Your task to perform on an android device: Clear the shopping cart on ebay. Search for "alienware aurora" on ebay, select the first entry, add it to the cart, then select checkout. Image 0: 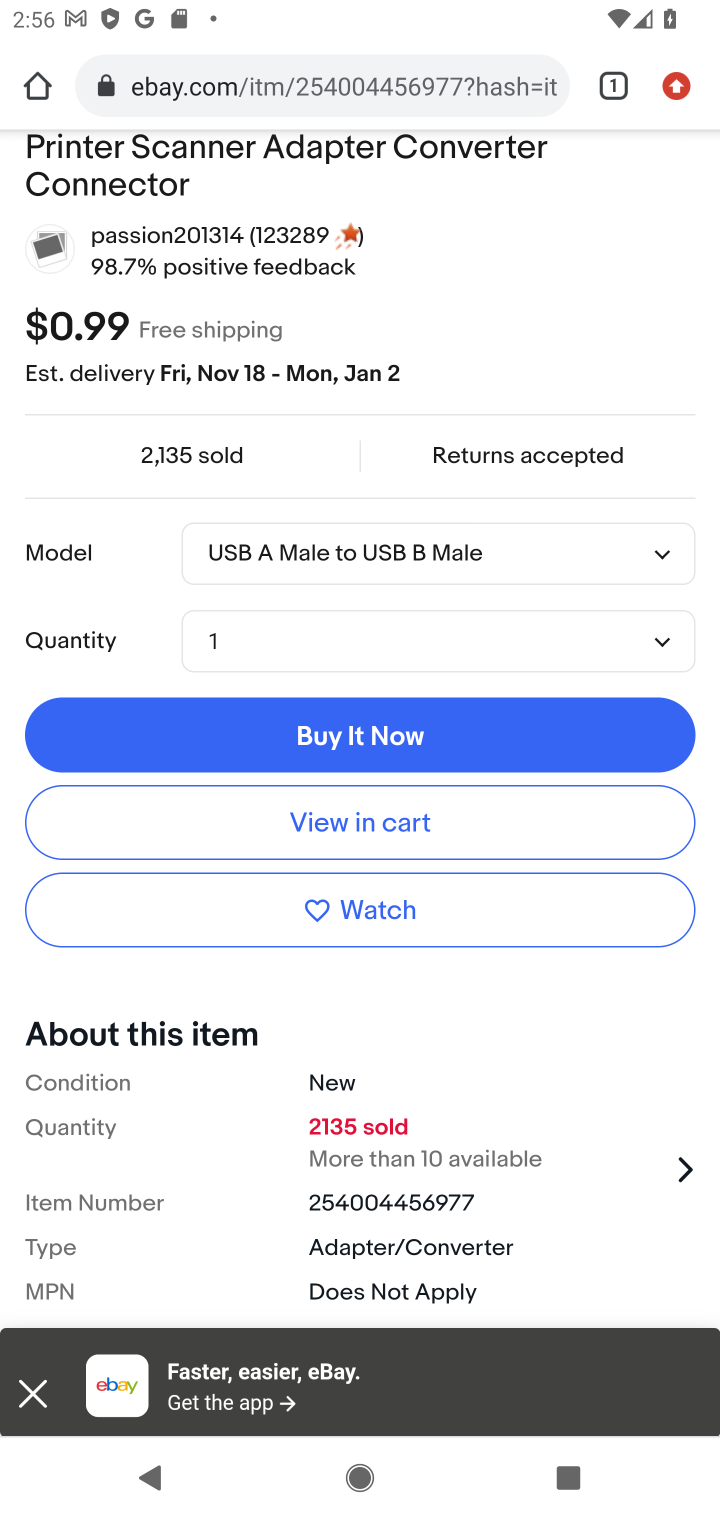
Step 0: click (326, 79)
Your task to perform on an android device: Clear the shopping cart on ebay. Search for "alienware aurora" on ebay, select the first entry, add it to the cart, then select checkout. Image 1: 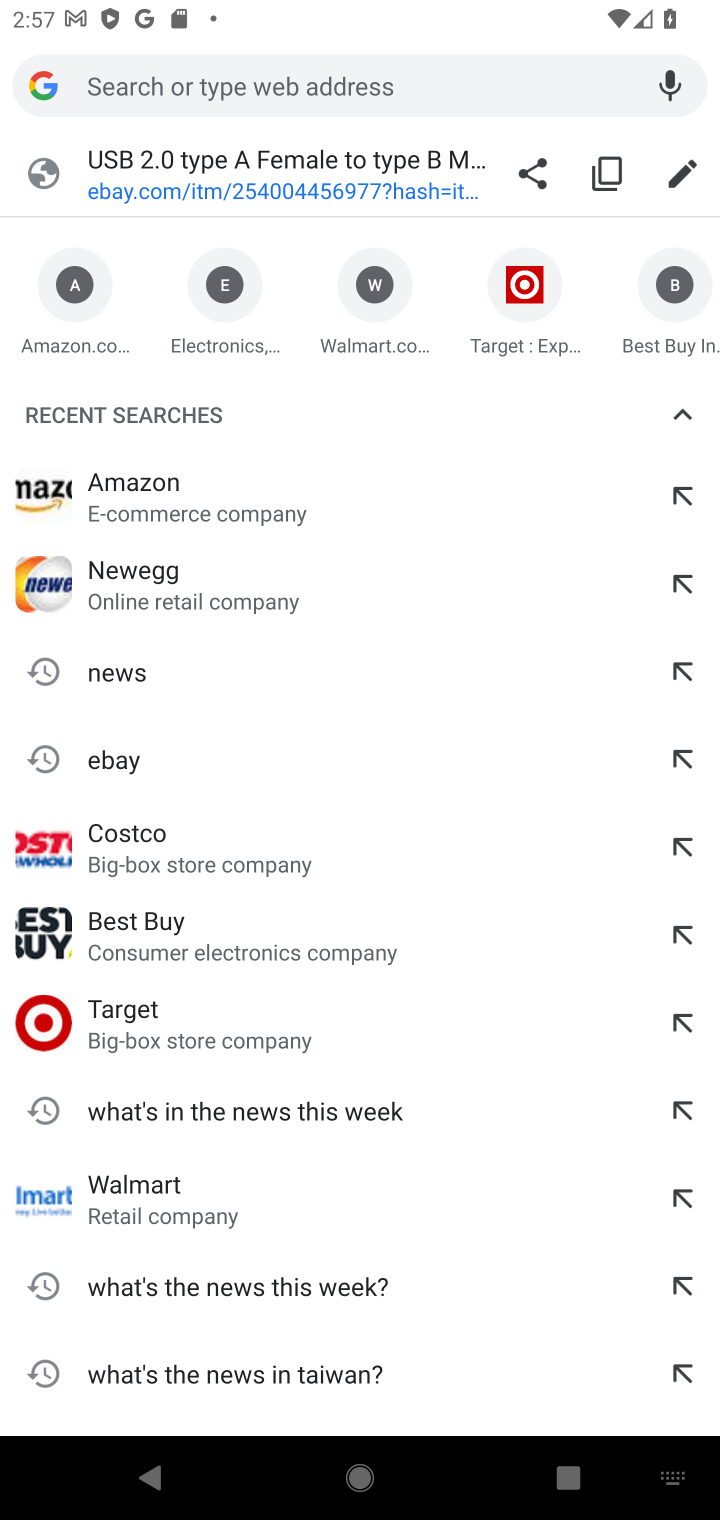
Step 1: type "ebay"
Your task to perform on an android device: Clear the shopping cart on ebay. Search for "alienware aurora" on ebay, select the first entry, add it to the cart, then select checkout. Image 2: 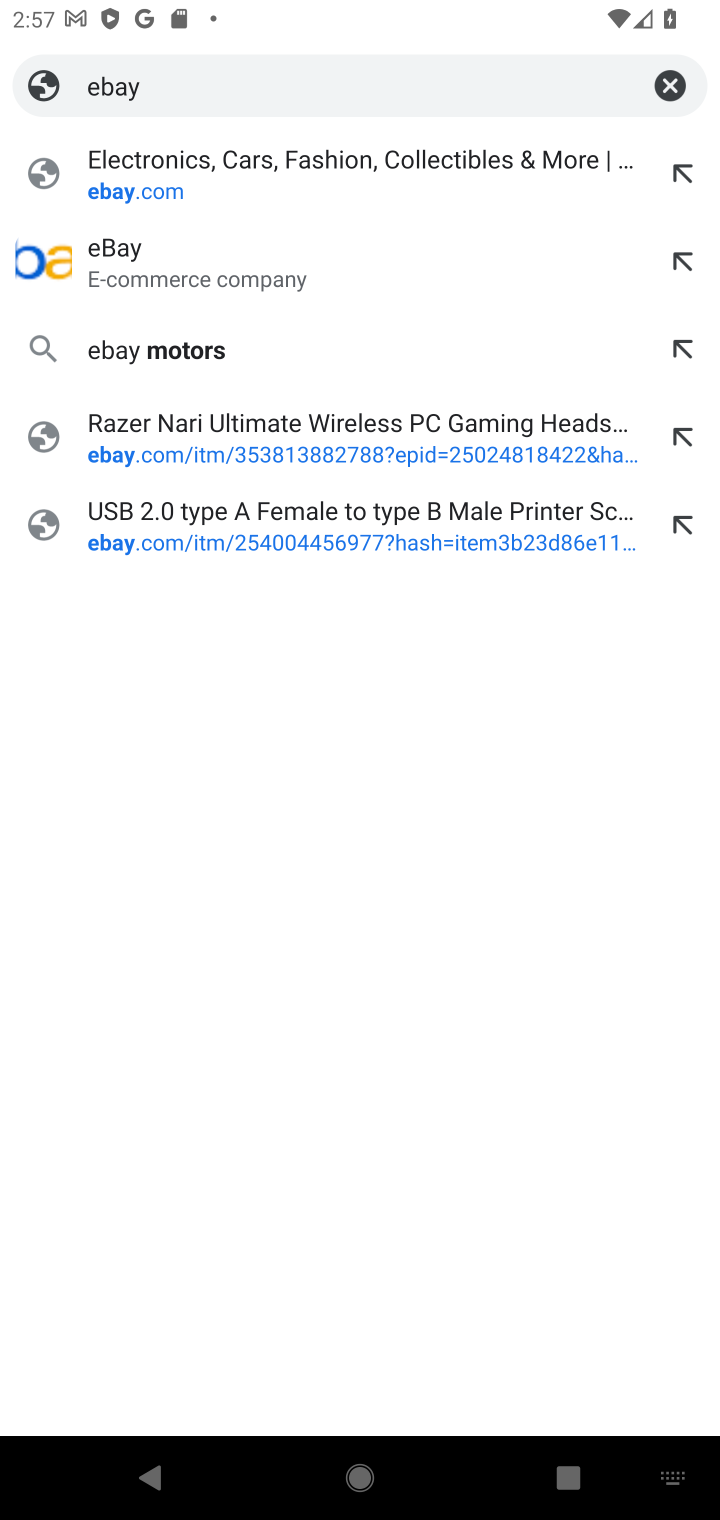
Step 2: click (226, 189)
Your task to perform on an android device: Clear the shopping cart on ebay. Search for "alienware aurora" on ebay, select the first entry, add it to the cart, then select checkout. Image 3: 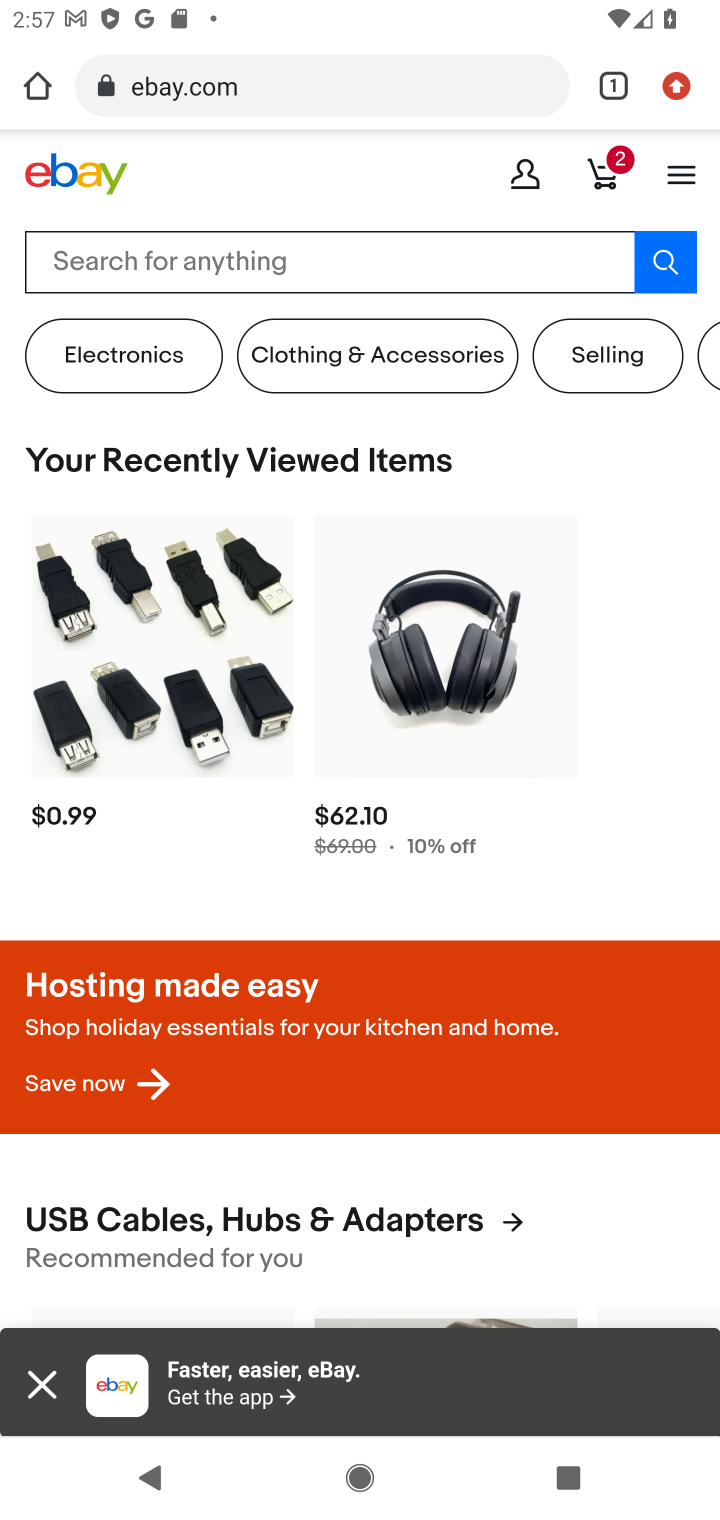
Step 3: click (618, 179)
Your task to perform on an android device: Clear the shopping cart on ebay. Search for "alienware aurora" on ebay, select the first entry, add it to the cart, then select checkout. Image 4: 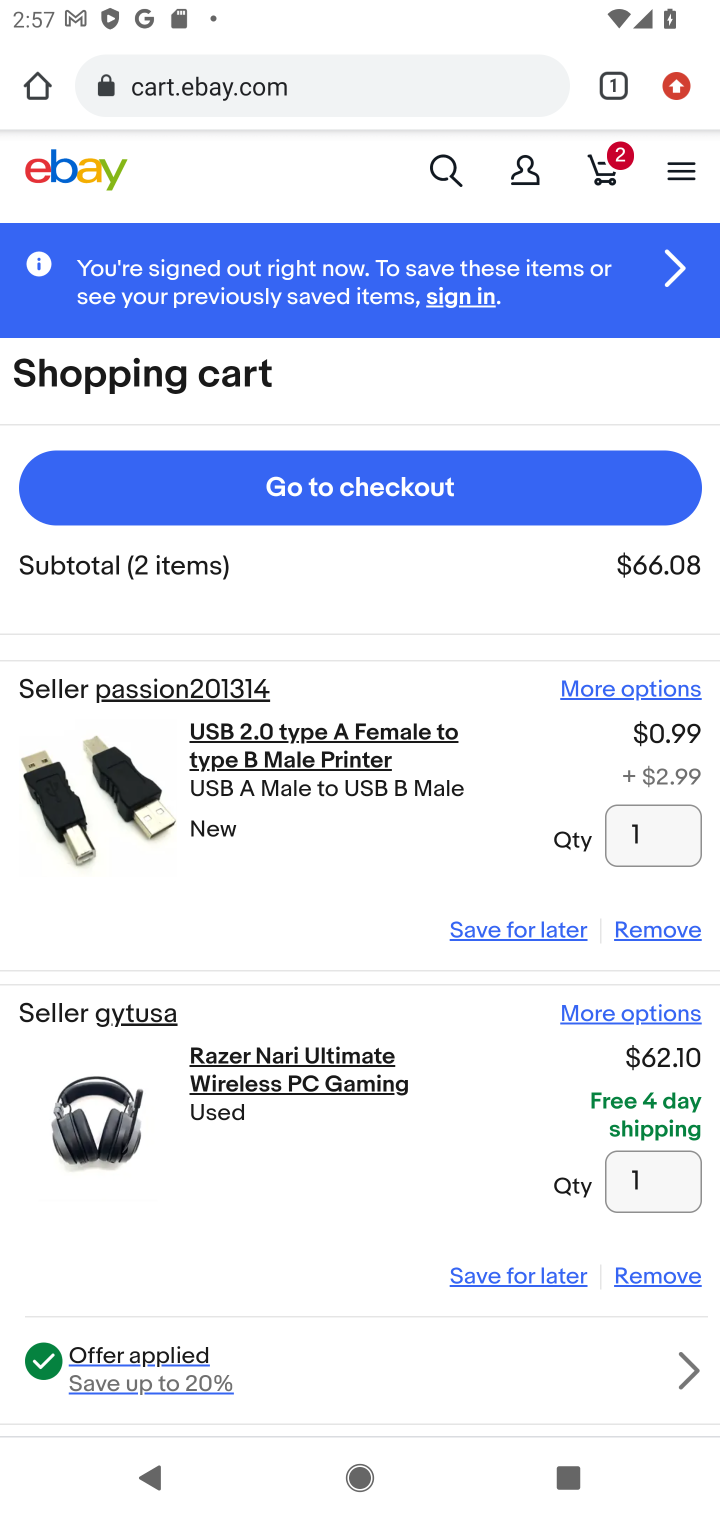
Step 4: click (652, 1282)
Your task to perform on an android device: Clear the shopping cart on ebay. Search for "alienware aurora" on ebay, select the first entry, add it to the cart, then select checkout. Image 5: 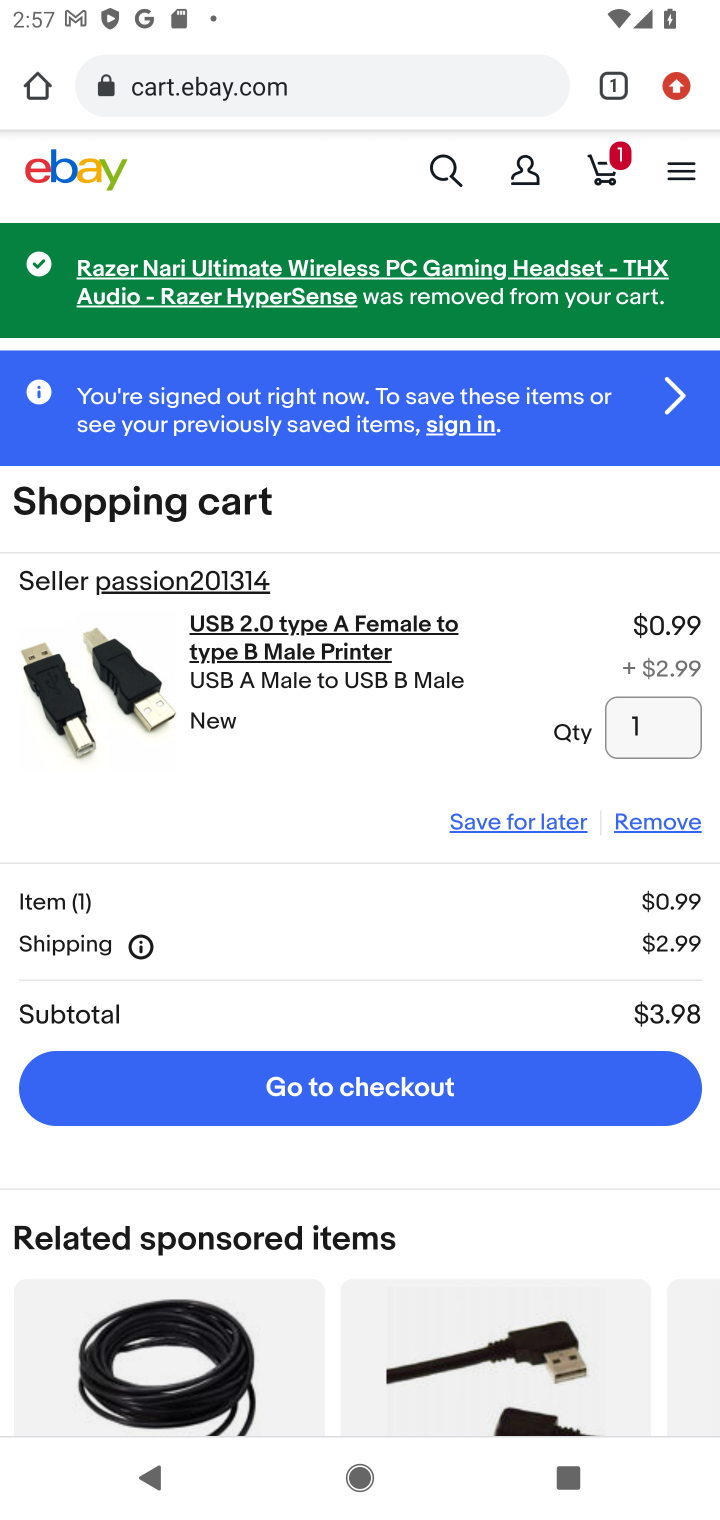
Step 5: click (634, 823)
Your task to perform on an android device: Clear the shopping cart on ebay. Search for "alienware aurora" on ebay, select the first entry, add it to the cart, then select checkout. Image 6: 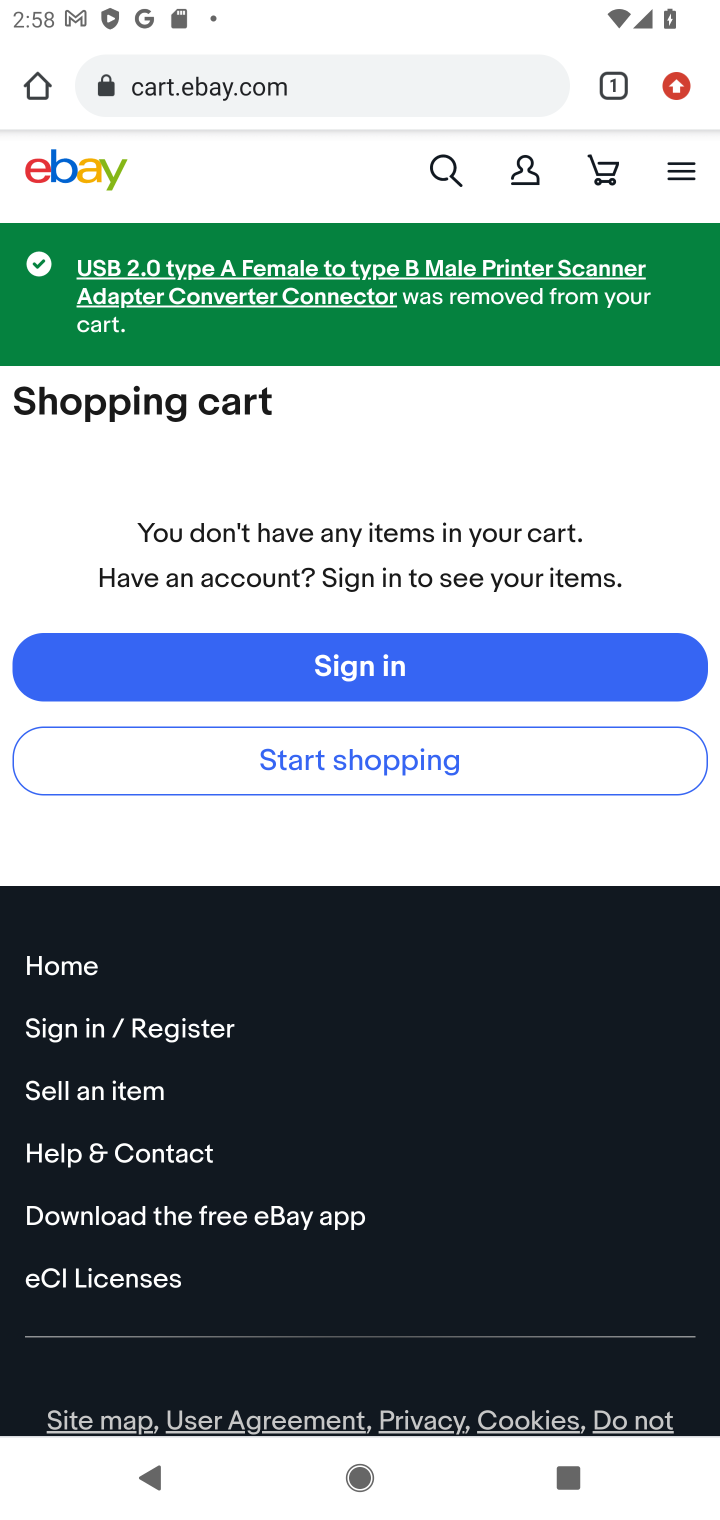
Step 6: click (451, 165)
Your task to perform on an android device: Clear the shopping cart on ebay. Search for "alienware aurora" on ebay, select the first entry, add it to the cart, then select checkout. Image 7: 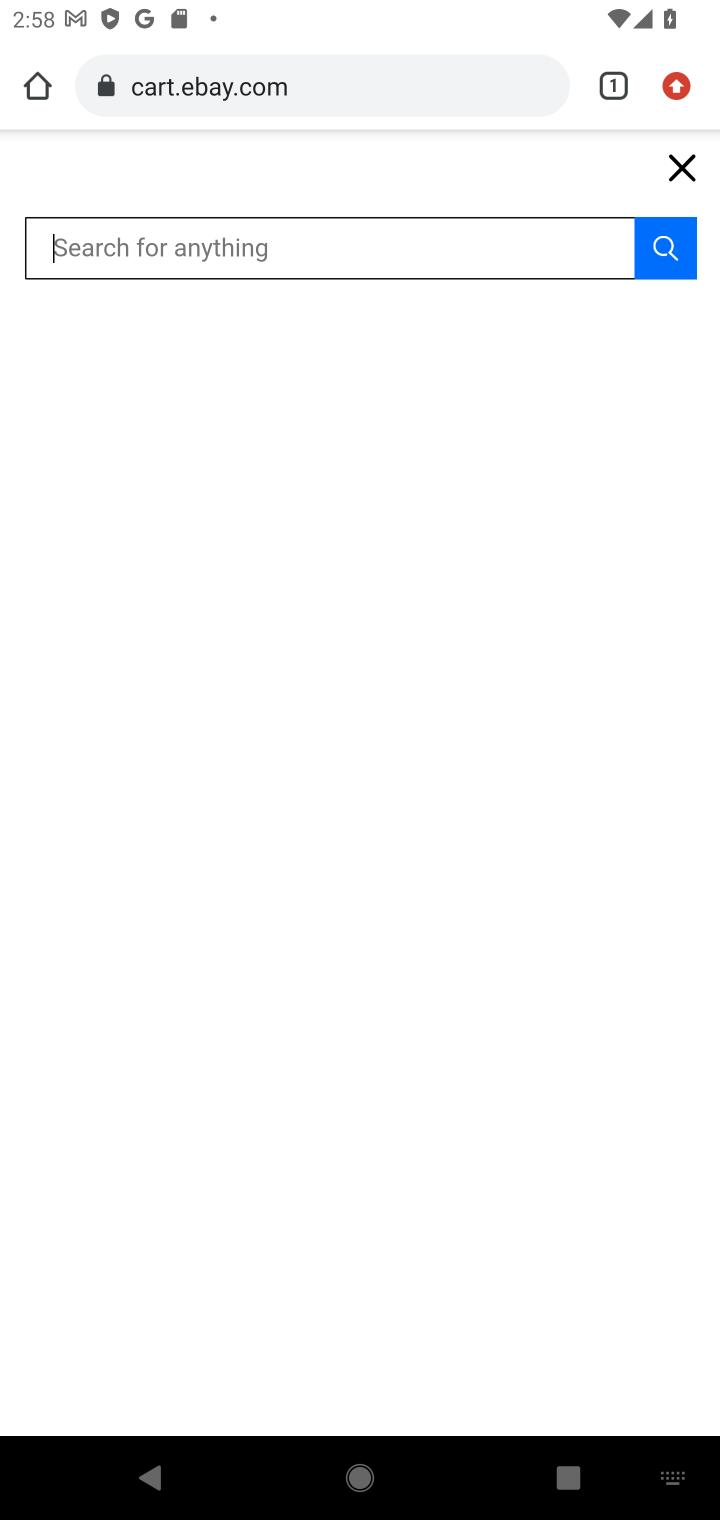
Step 7: click (366, 247)
Your task to perform on an android device: Clear the shopping cart on ebay. Search for "alienware aurora" on ebay, select the first entry, add it to the cart, then select checkout. Image 8: 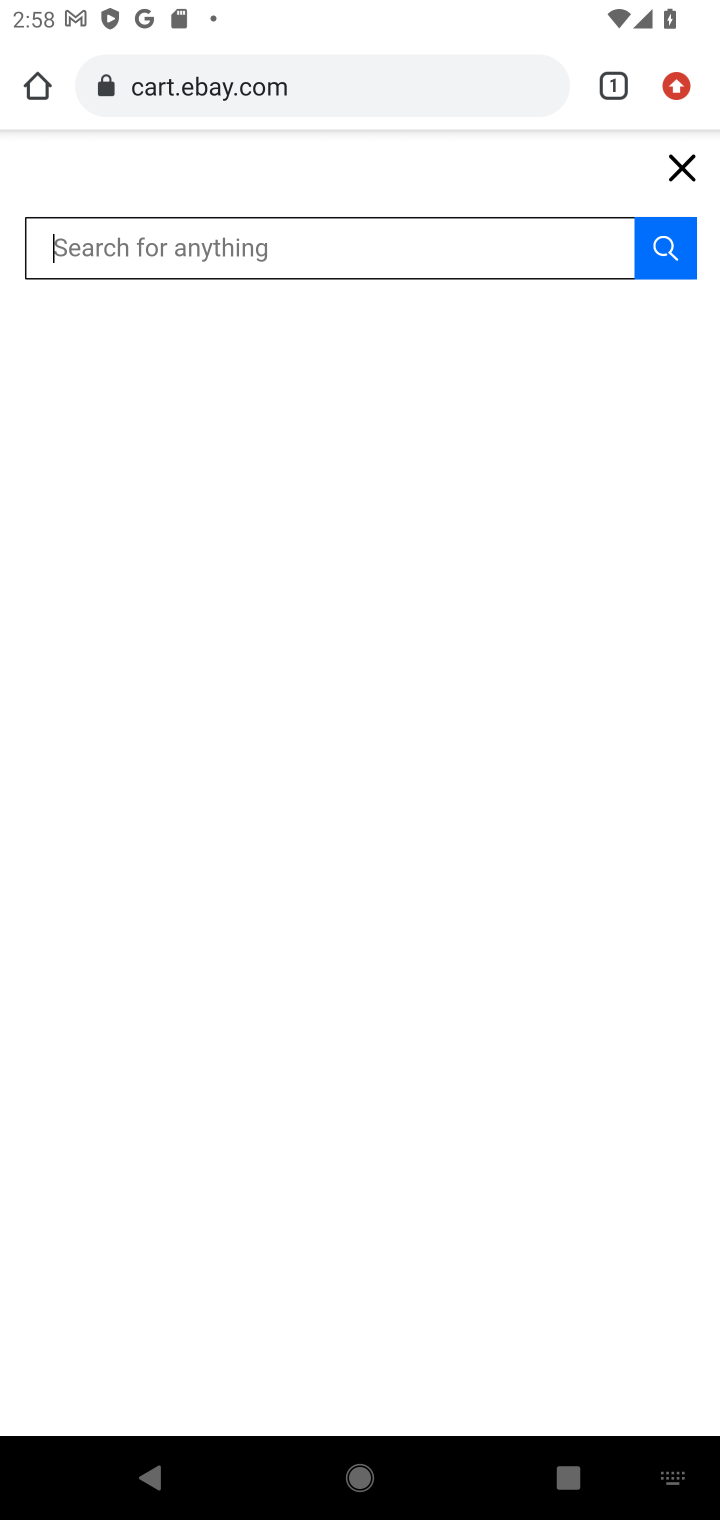
Step 8: type "alienware aurora"
Your task to perform on an android device: Clear the shopping cart on ebay. Search for "alienware aurora" on ebay, select the first entry, add it to the cart, then select checkout. Image 9: 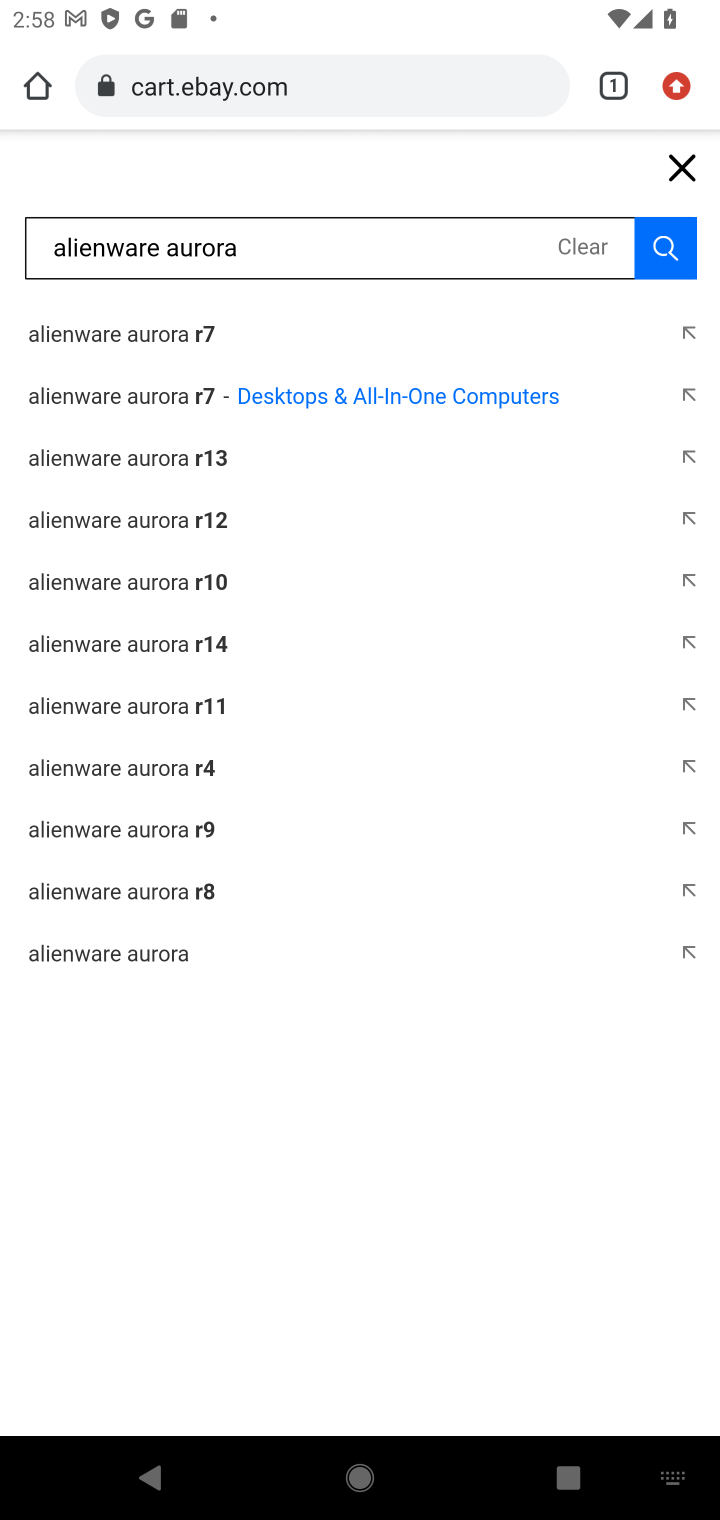
Step 9: press enter
Your task to perform on an android device: Clear the shopping cart on ebay. Search for "alienware aurora" on ebay, select the first entry, add it to the cart, then select checkout. Image 10: 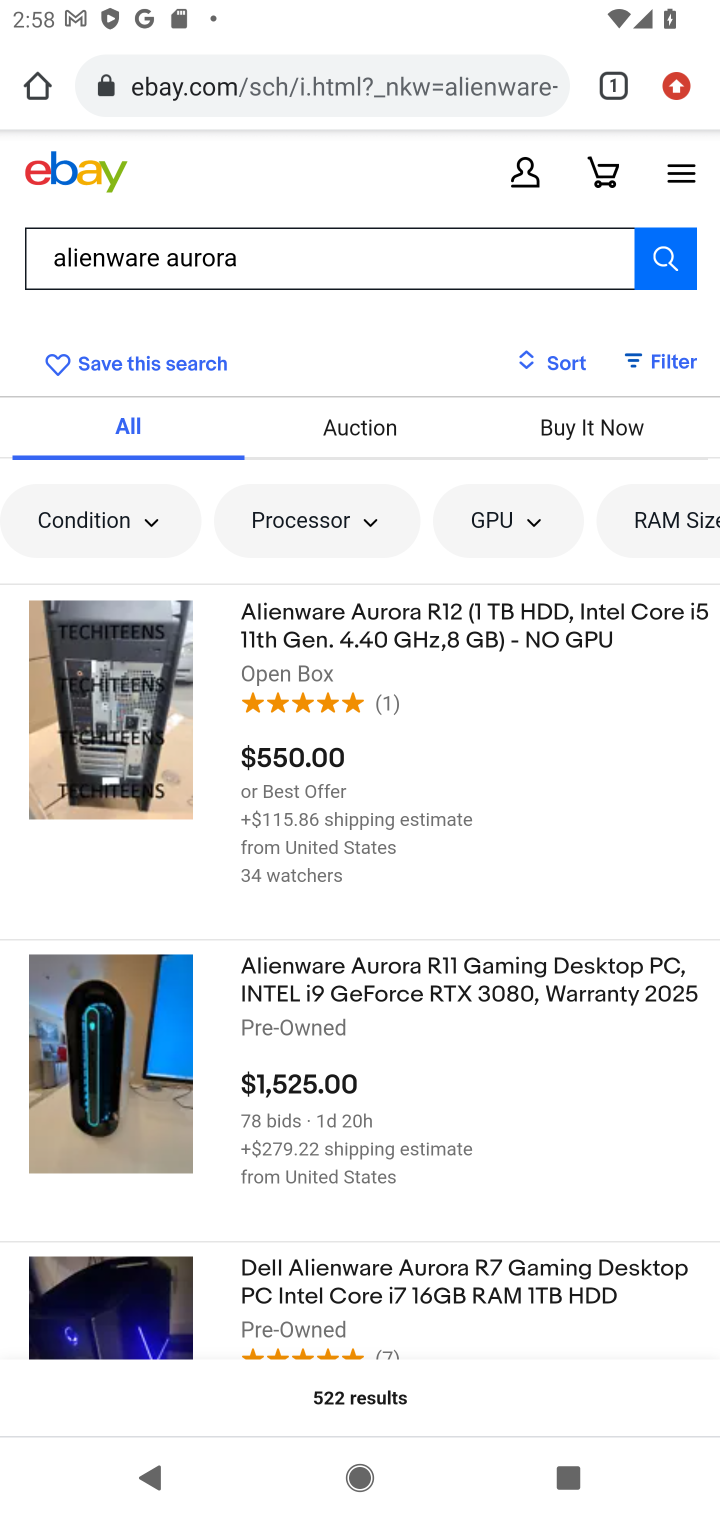
Step 10: click (179, 704)
Your task to perform on an android device: Clear the shopping cart on ebay. Search for "alienware aurora" on ebay, select the first entry, add it to the cart, then select checkout. Image 11: 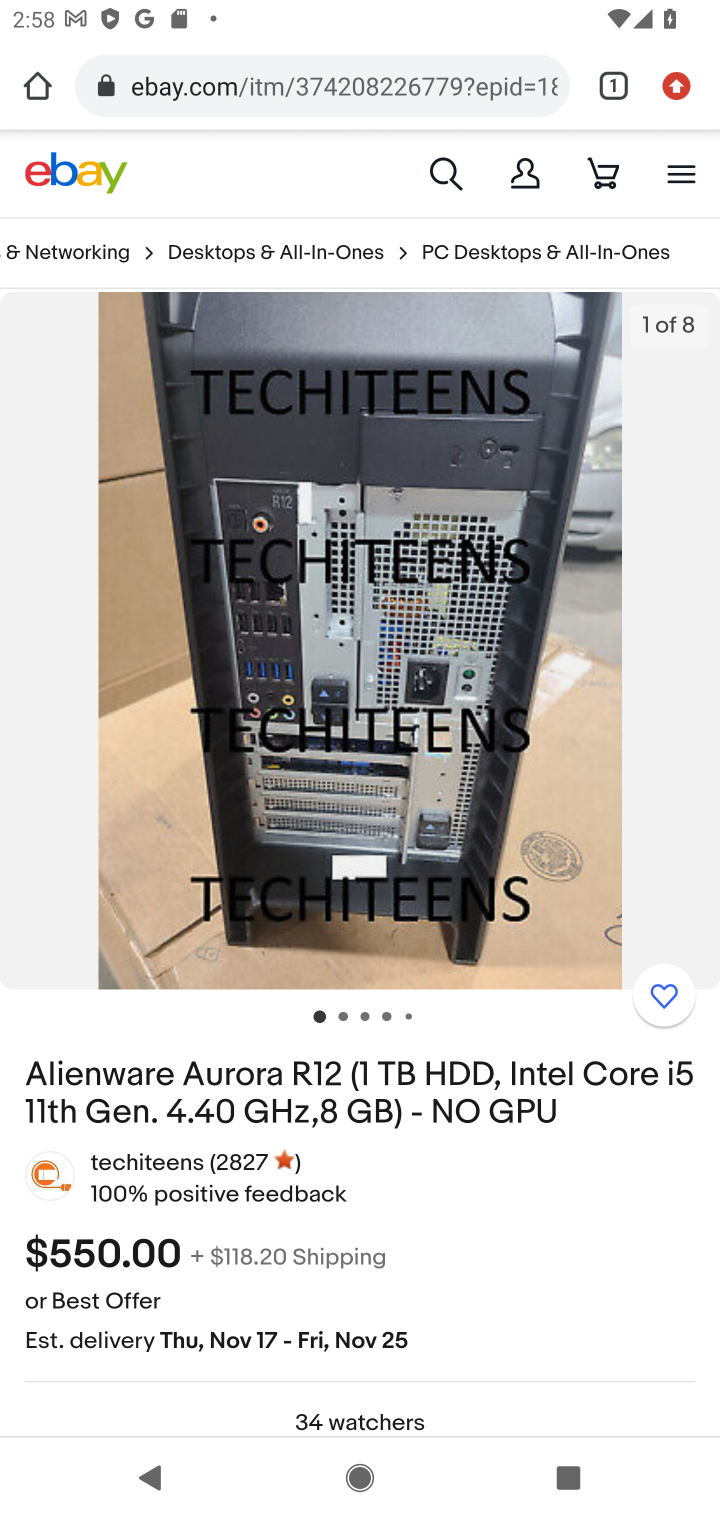
Step 11: drag from (459, 1293) to (400, 613)
Your task to perform on an android device: Clear the shopping cart on ebay. Search for "alienware aurora" on ebay, select the first entry, add it to the cart, then select checkout. Image 12: 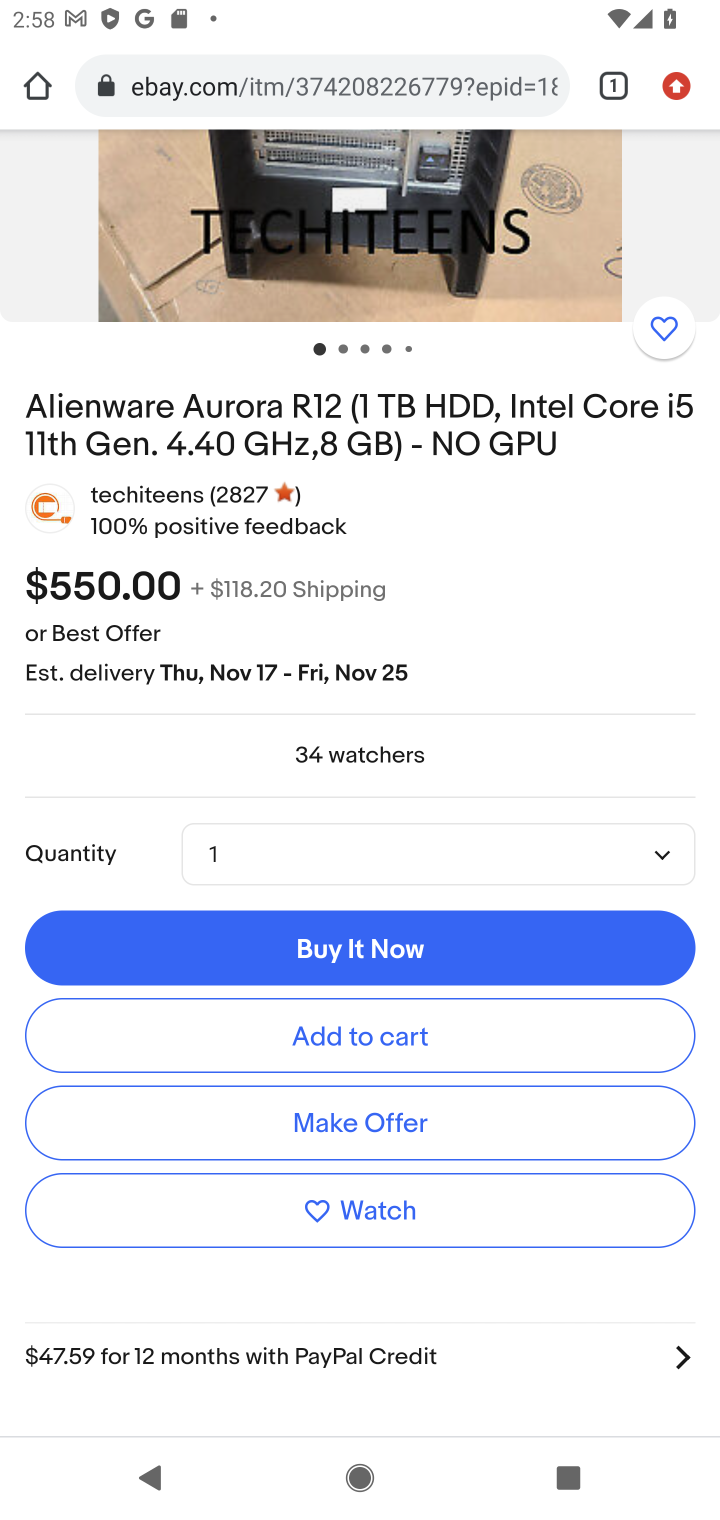
Step 12: click (421, 1039)
Your task to perform on an android device: Clear the shopping cart on ebay. Search for "alienware aurora" on ebay, select the first entry, add it to the cart, then select checkout. Image 13: 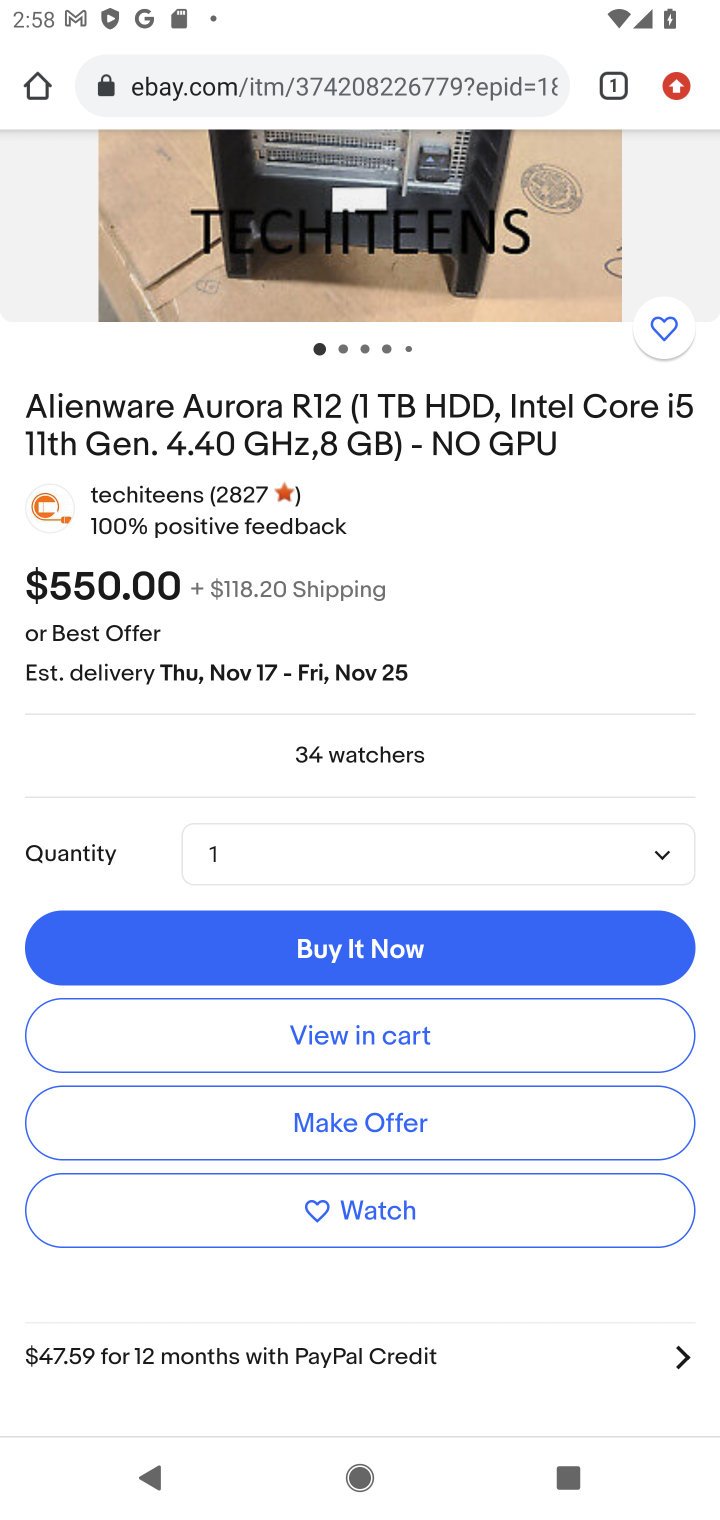
Step 13: drag from (551, 488) to (555, 1170)
Your task to perform on an android device: Clear the shopping cart on ebay. Search for "alienware aurora" on ebay, select the first entry, add it to the cart, then select checkout. Image 14: 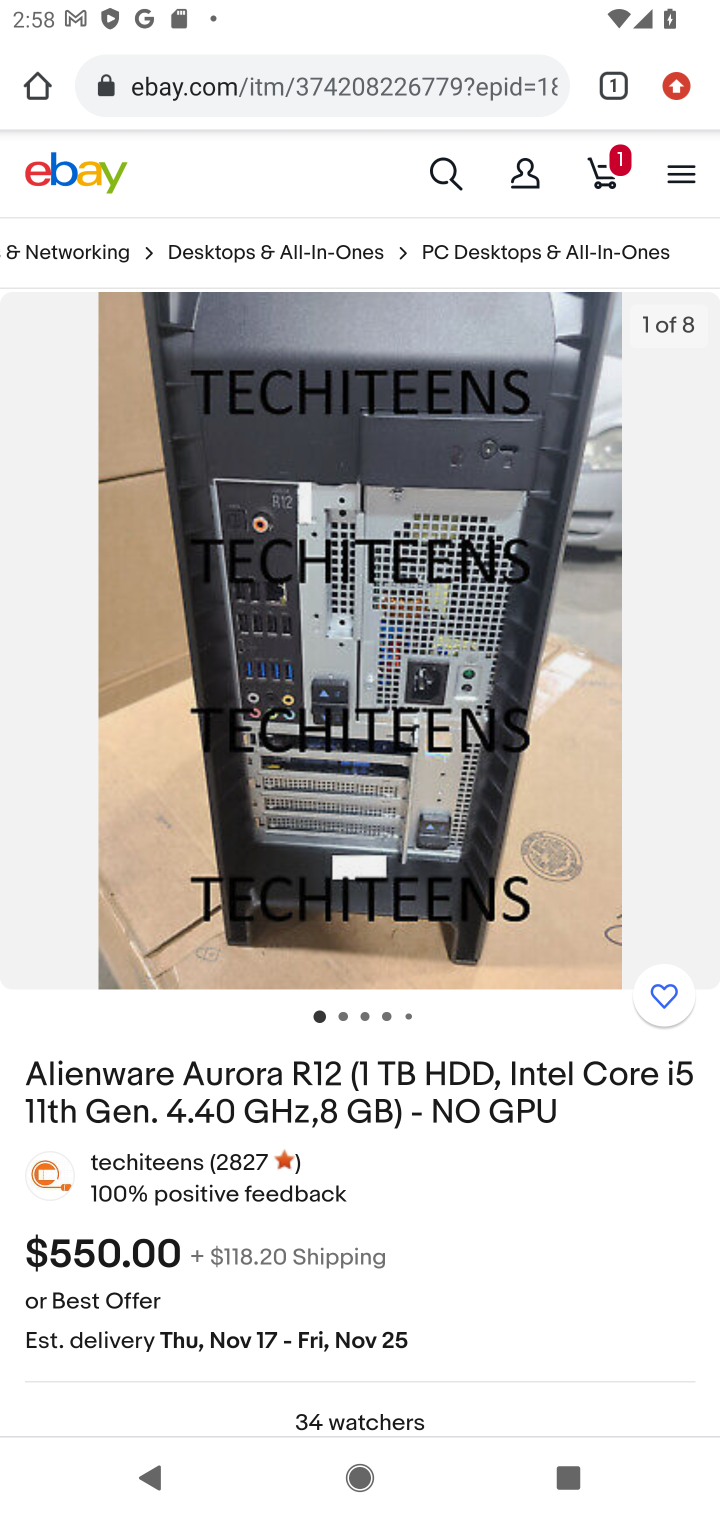
Step 14: click (603, 170)
Your task to perform on an android device: Clear the shopping cart on ebay. Search for "alienware aurora" on ebay, select the first entry, add it to the cart, then select checkout. Image 15: 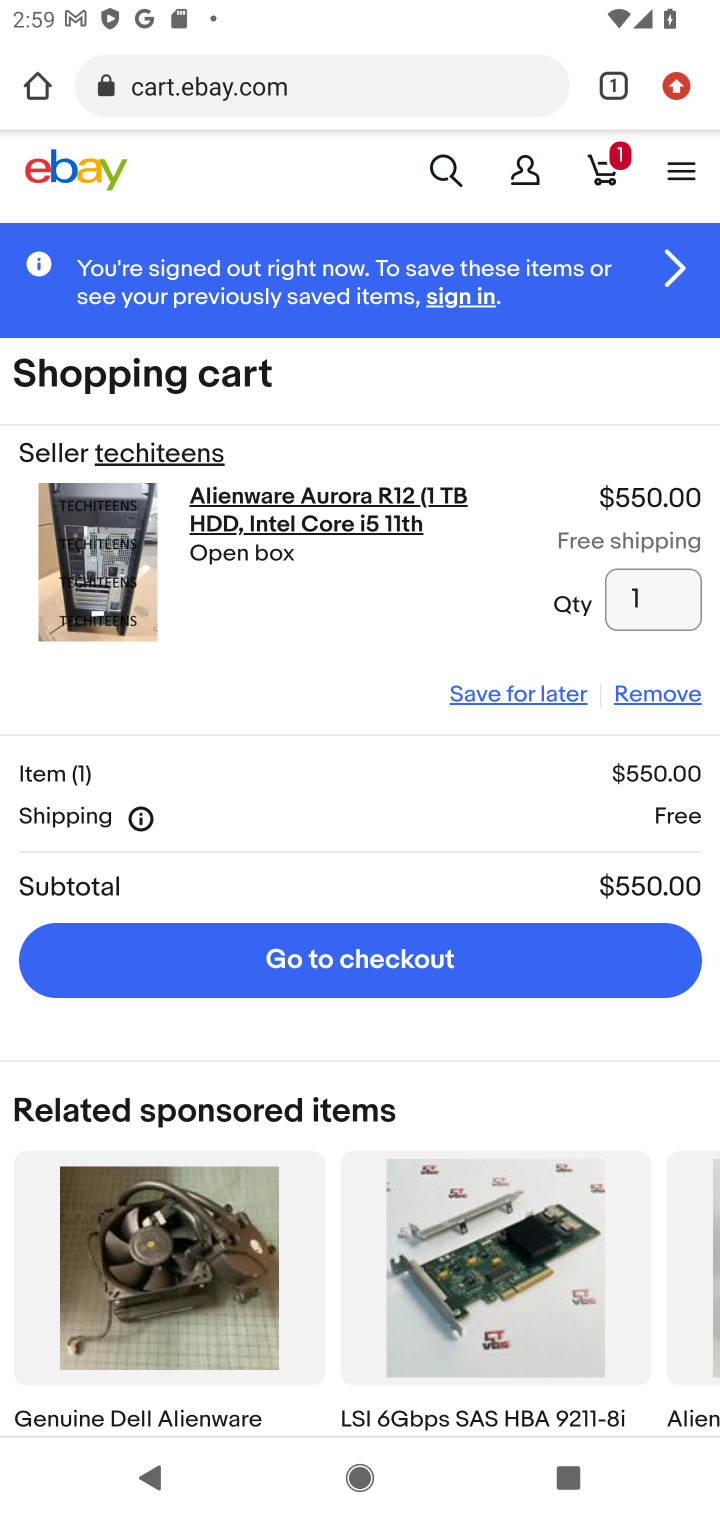
Step 15: click (522, 929)
Your task to perform on an android device: Clear the shopping cart on ebay. Search for "alienware aurora" on ebay, select the first entry, add it to the cart, then select checkout. Image 16: 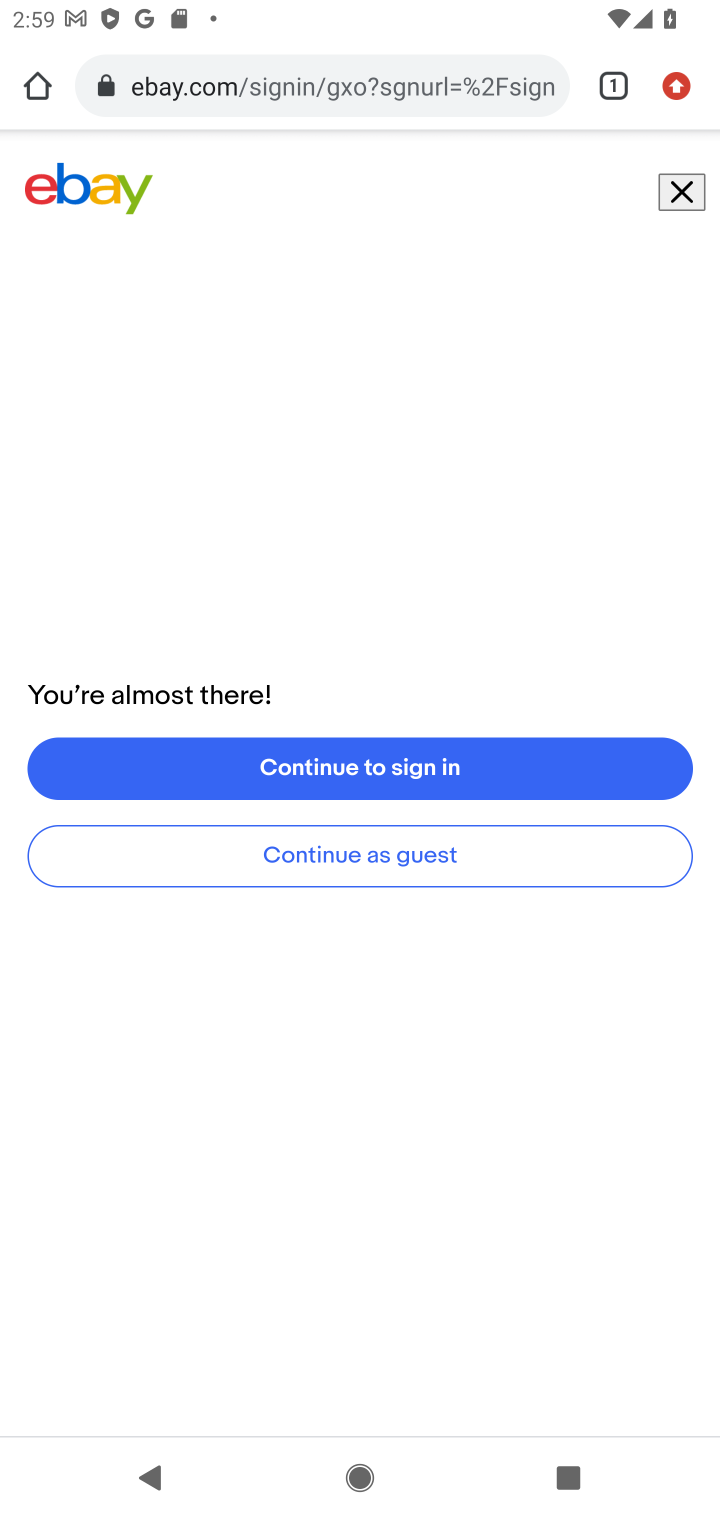
Step 16: task complete